Your task to perform on an android device: snooze an email in the gmail app Image 0: 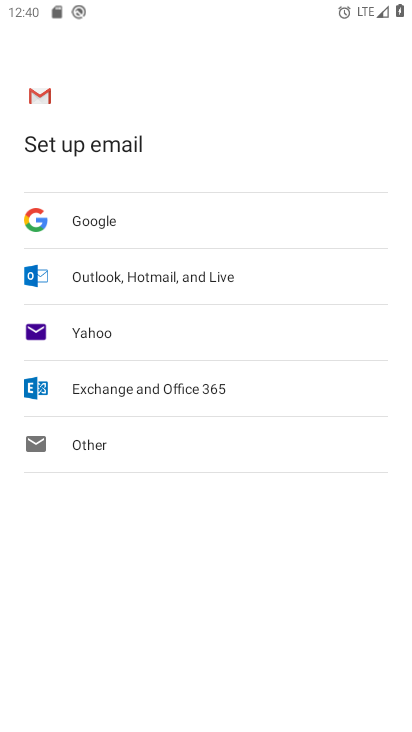
Step 0: press home button
Your task to perform on an android device: snooze an email in the gmail app Image 1: 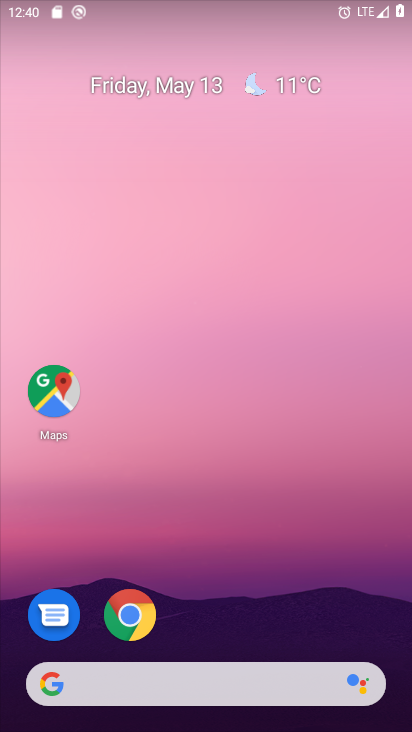
Step 1: drag from (248, 569) to (264, 74)
Your task to perform on an android device: snooze an email in the gmail app Image 2: 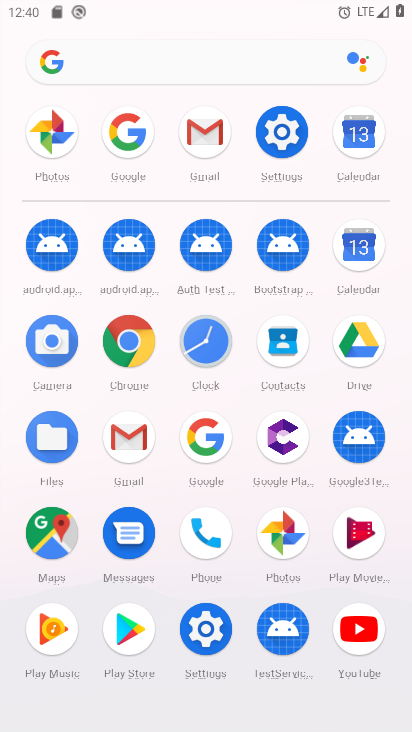
Step 2: click (214, 138)
Your task to perform on an android device: snooze an email in the gmail app Image 3: 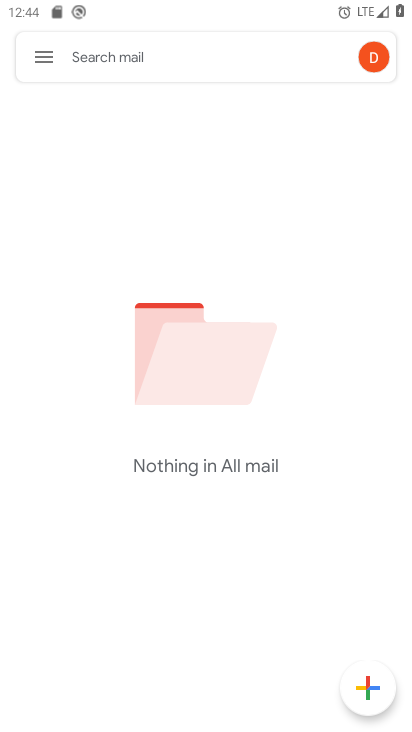
Step 3: task complete